Your task to perform on an android device: Go to accessibility settings Image 0: 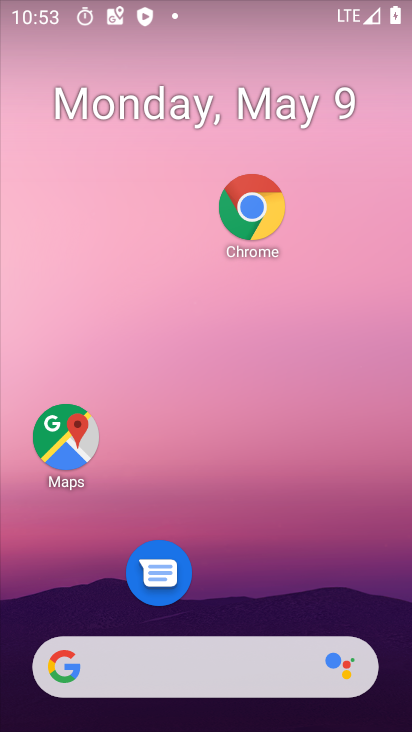
Step 0: drag from (217, 625) to (257, 243)
Your task to perform on an android device: Go to accessibility settings Image 1: 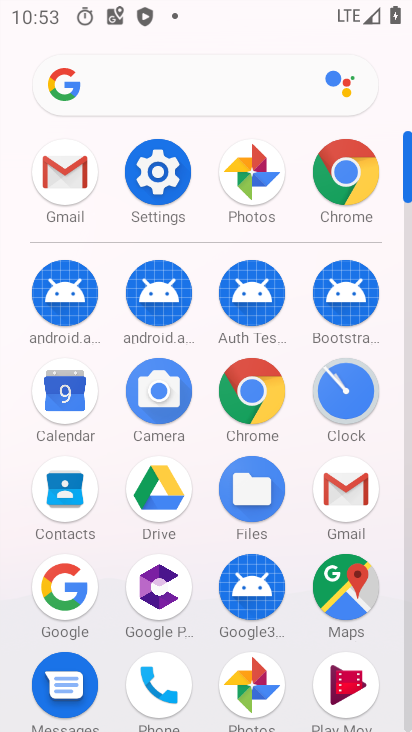
Step 1: click (170, 148)
Your task to perform on an android device: Go to accessibility settings Image 2: 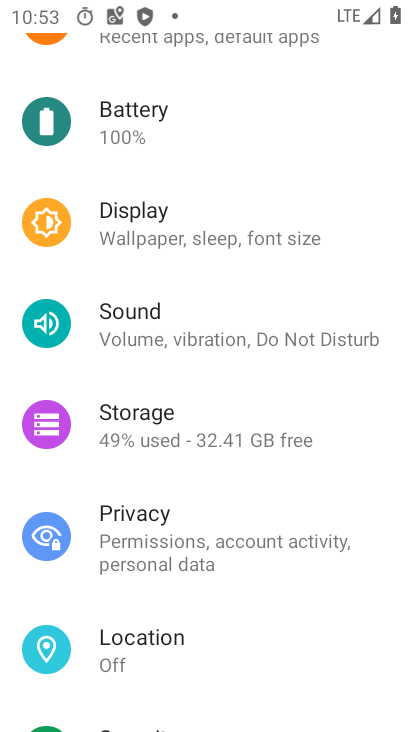
Step 2: drag from (170, 420) to (181, 186)
Your task to perform on an android device: Go to accessibility settings Image 3: 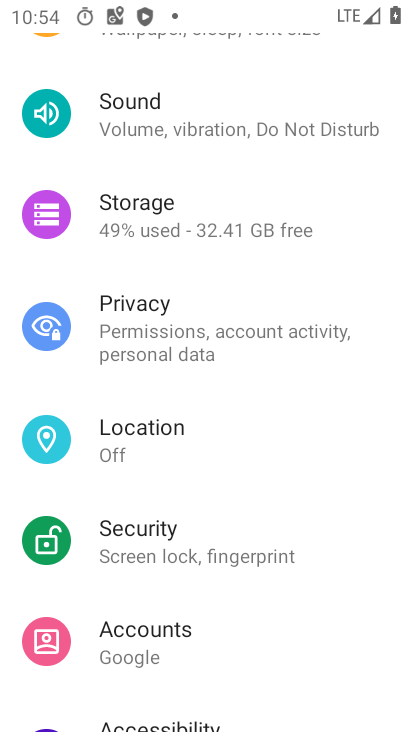
Step 3: drag from (225, 244) to (215, 4)
Your task to perform on an android device: Go to accessibility settings Image 4: 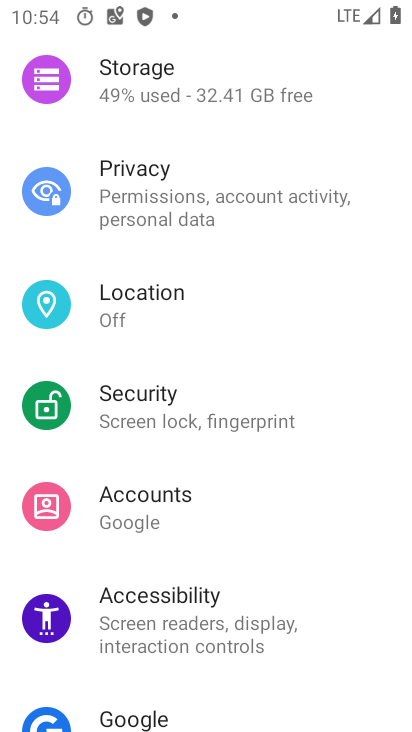
Step 4: click (199, 594)
Your task to perform on an android device: Go to accessibility settings Image 5: 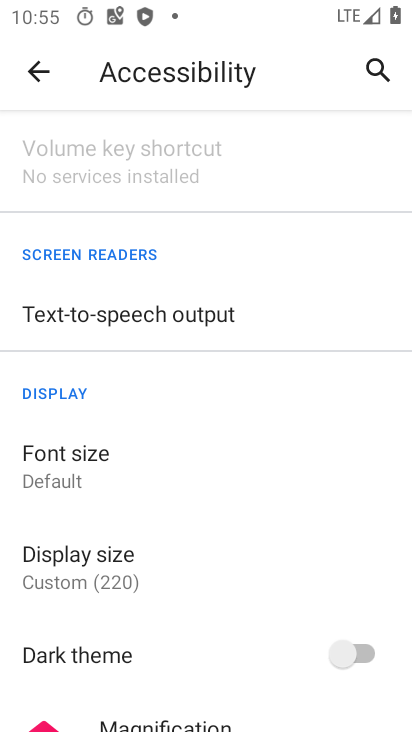
Step 5: task complete